Your task to perform on an android device: turn off translation in the chrome app Image 0: 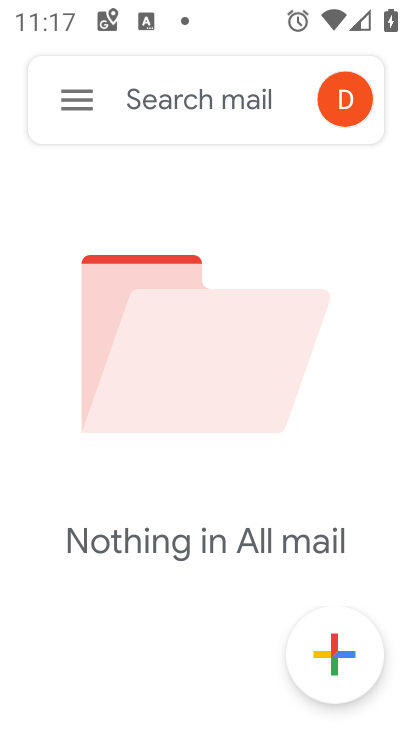
Step 0: press home button
Your task to perform on an android device: turn off translation in the chrome app Image 1: 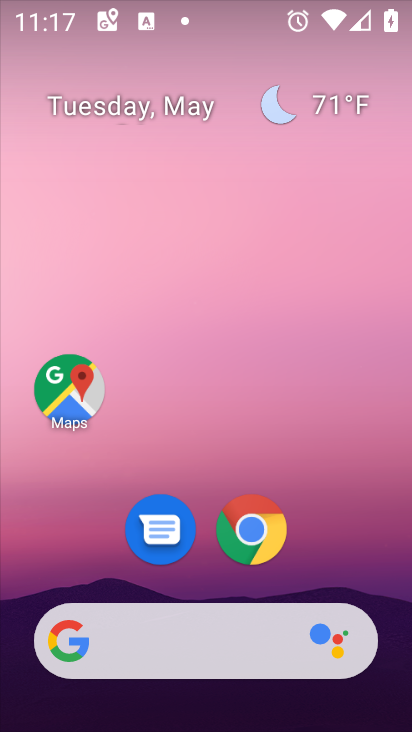
Step 1: drag from (255, 606) to (244, 191)
Your task to perform on an android device: turn off translation in the chrome app Image 2: 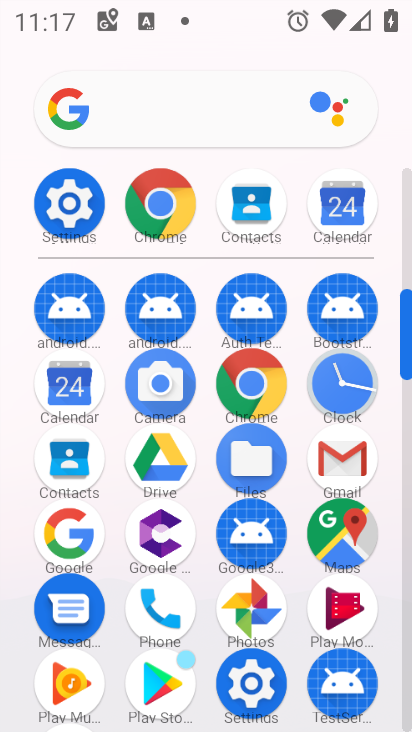
Step 2: click (170, 212)
Your task to perform on an android device: turn off translation in the chrome app Image 3: 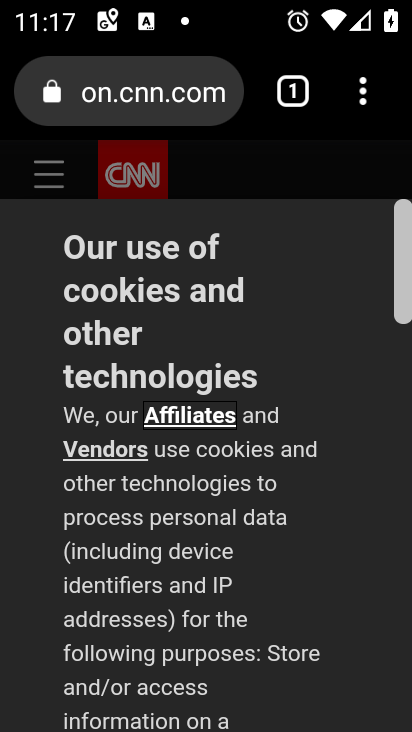
Step 3: click (363, 87)
Your task to perform on an android device: turn off translation in the chrome app Image 4: 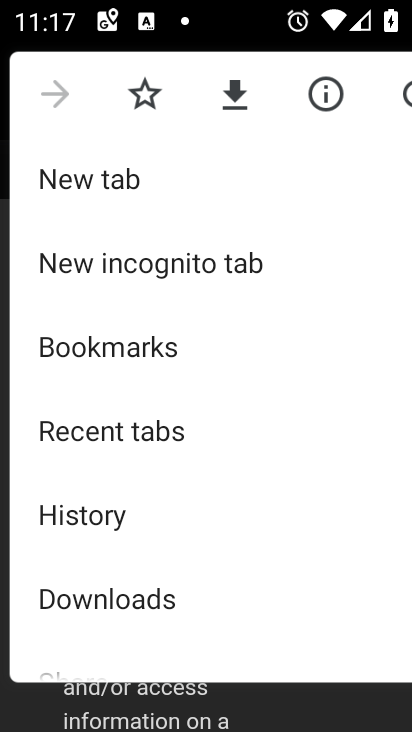
Step 4: task complete